Your task to perform on an android device: choose inbox layout in the gmail app Image 0: 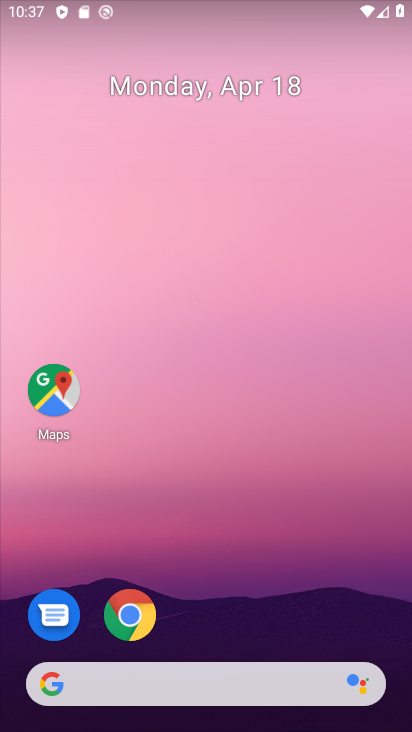
Step 0: drag from (320, 535) to (284, 45)
Your task to perform on an android device: choose inbox layout in the gmail app Image 1: 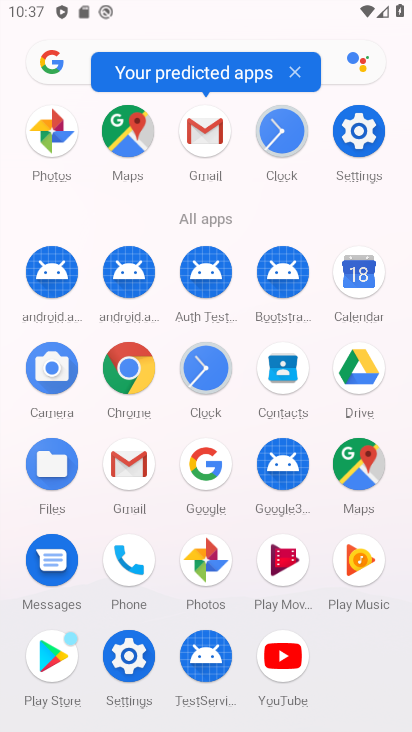
Step 1: click (132, 472)
Your task to perform on an android device: choose inbox layout in the gmail app Image 2: 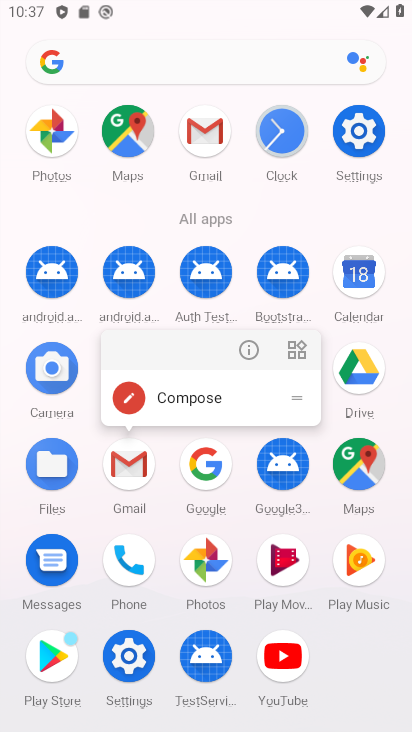
Step 2: click (132, 472)
Your task to perform on an android device: choose inbox layout in the gmail app Image 3: 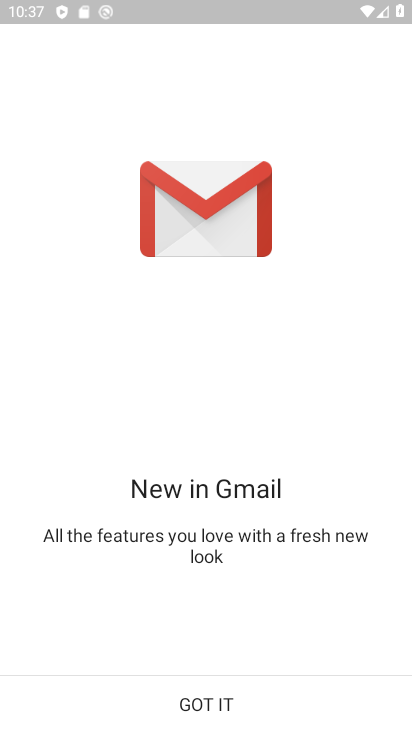
Step 3: click (257, 715)
Your task to perform on an android device: choose inbox layout in the gmail app Image 4: 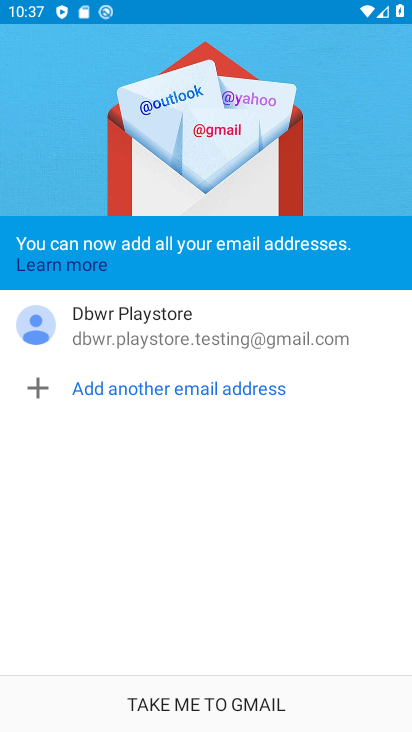
Step 4: click (261, 707)
Your task to perform on an android device: choose inbox layout in the gmail app Image 5: 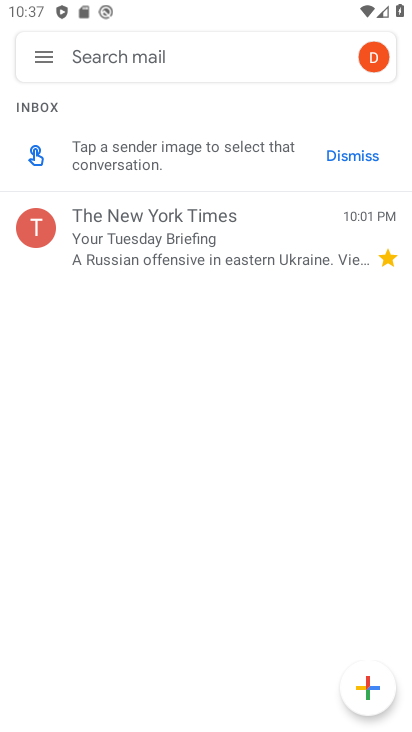
Step 5: task complete